Your task to perform on an android device: Do I have any events tomorrow? Image 0: 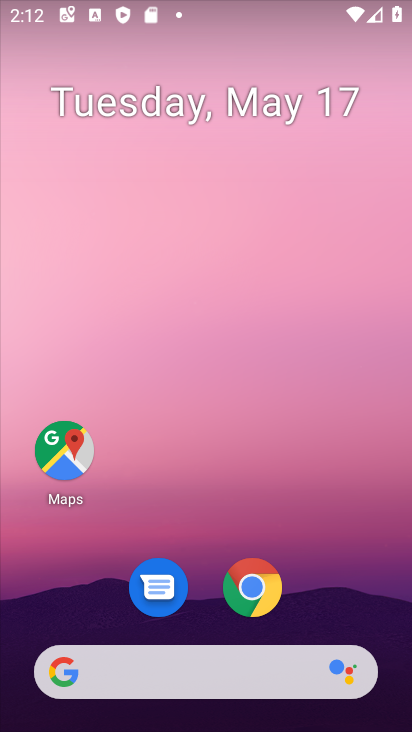
Step 0: drag from (210, 623) to (205, 105)
Your task to perform on an android device: Do I have any events tomorrow? Image 1: 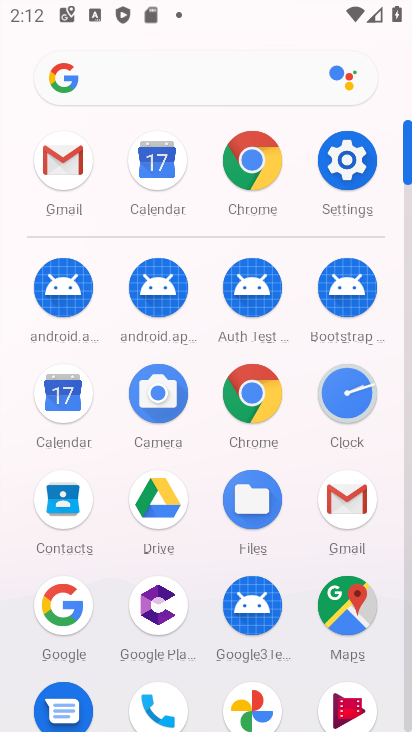
Step 1: click (62, 401)
Your task to perform on an android device: Do I have any events tomorrow? Image 2: 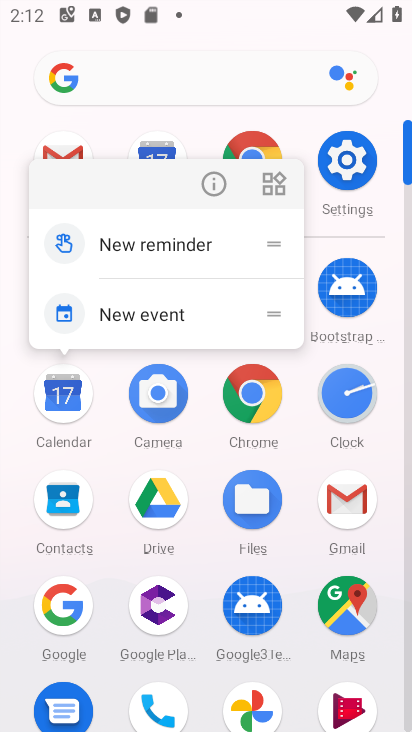
Step 2: click (224, 183)
Your task to perform on an android device: Do I have any events tomorrow? Image 3: 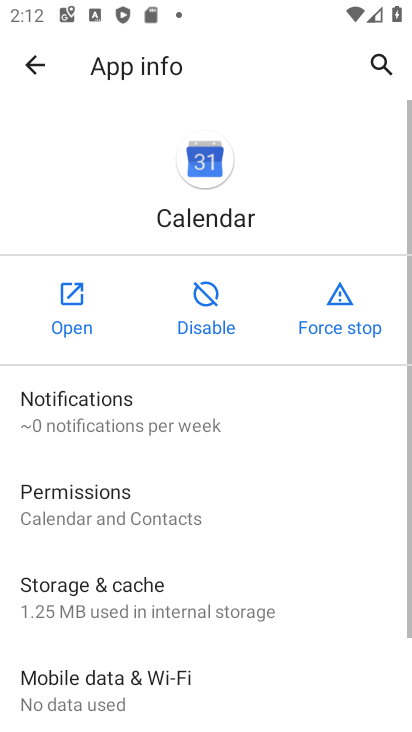
Step 3: click (60, 303)
Your task to perform on an android device: Do I have any events tomorrow? Image 4: 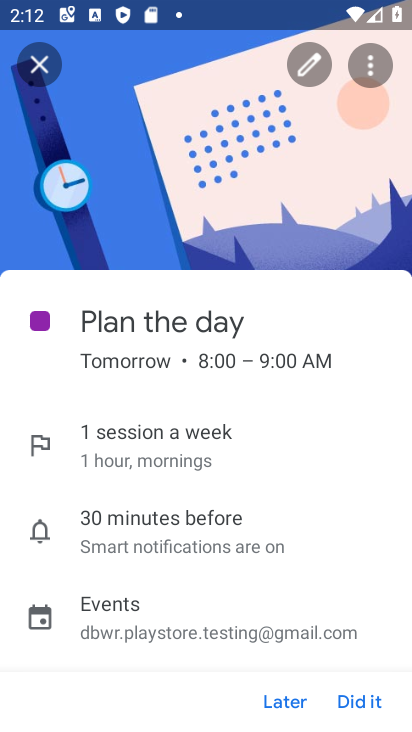
Step 4: drag from (253, 533) to (318, 212)
Your task to perform on an android device: Do I have any events tomorrow? Image 5: 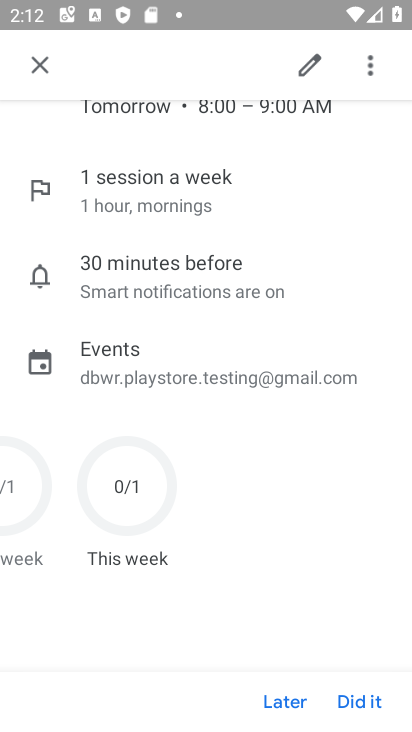
Step 5: click (36, 73)
Your task to perform on an android device: Do I have any events tomorrow? Image 6: 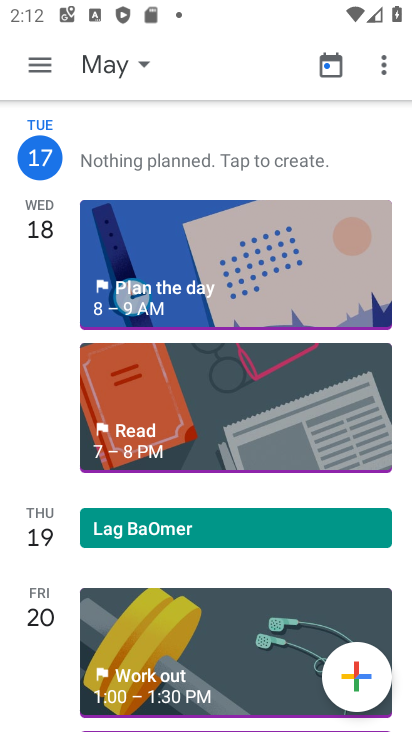
Step 6: click (109, 58)
Your task to perform on an android device: Do I have any events tomorrow? Image 7: 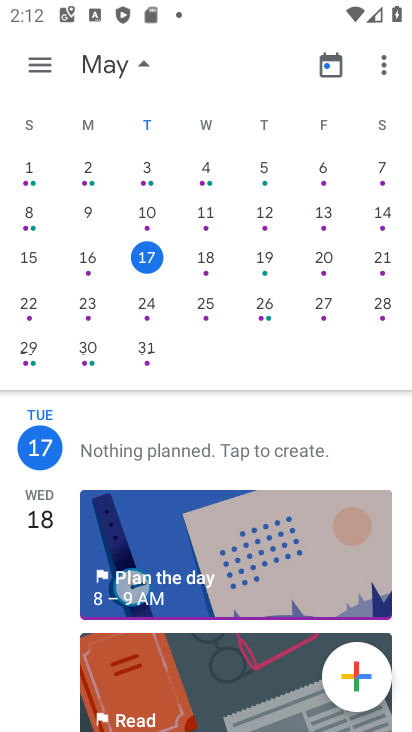
Step 7: click (209, 256)
Your task to perform on an android device: Do I have any events tomorrow? Image 8: 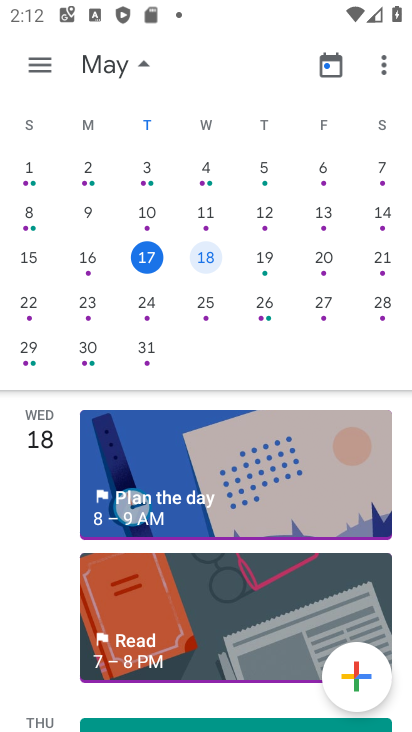
Step 8: task complete